Your task to perform on an android device: Play the last video I watched on Youtube Image 0: 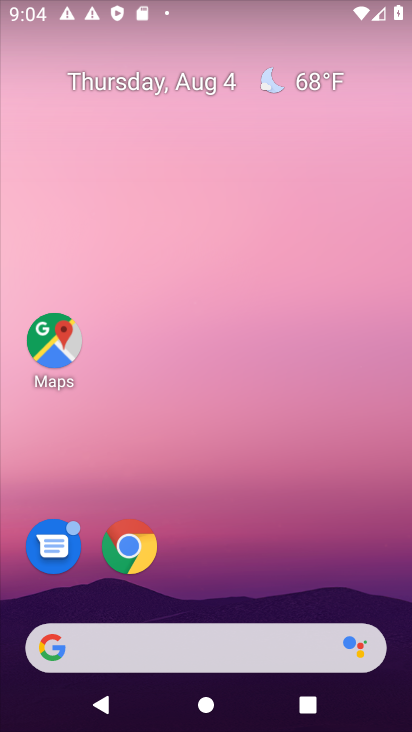
Step 0: press home button
Your task to perform on an android device: Play the last video I watched on Youtube Image 1: 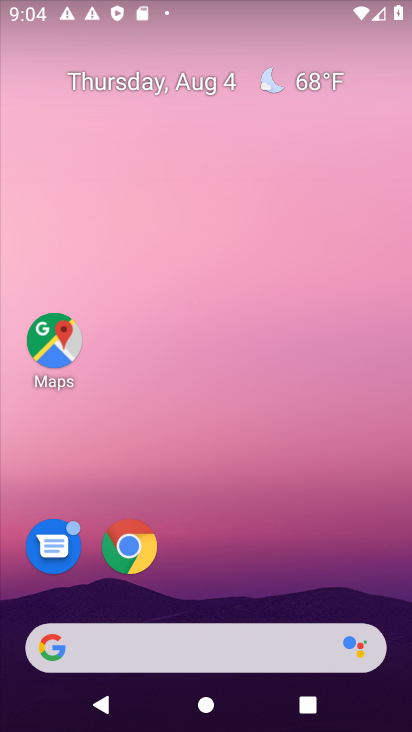
Step 1: drag from (229, 602) to (218, 124)
Your task to perform on an android device: Play the last video I watched on Youtube Image 2: 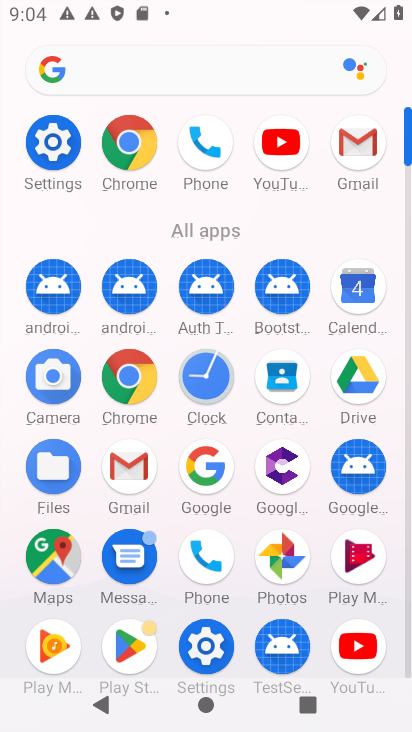
Step 2: click (353, 654)
Your task to perform on an android device: Play the last video I watched on Youtube Image 3: 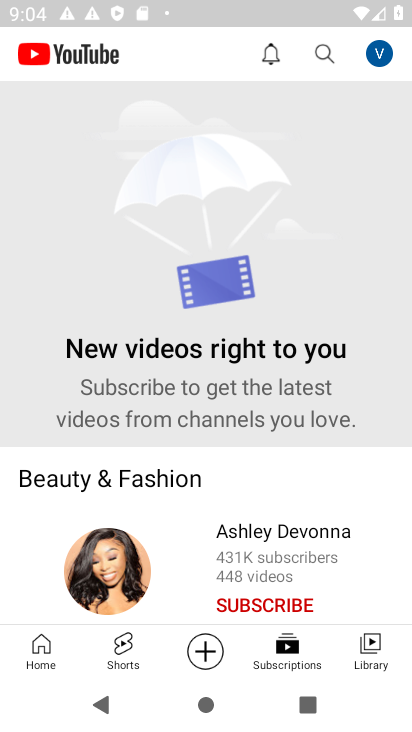
Step 3: click (369, 650)
Your task to perform on an android device: Play the last video I watched on Youtube Image 4: 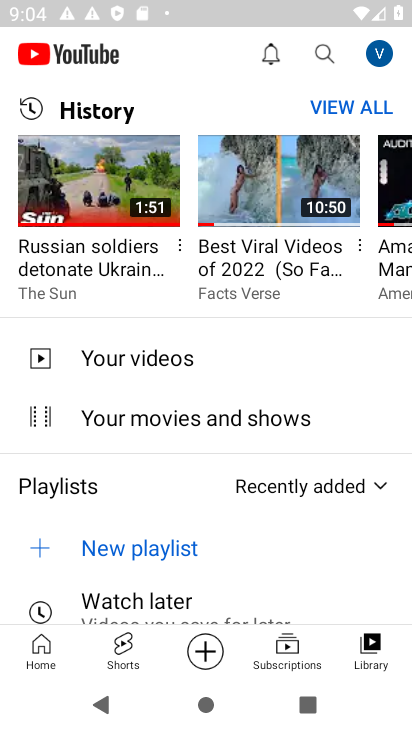
Step 4: click (104, 187)
Your task to perform on an android device: Play the last video I watched on Youtube Image 5: 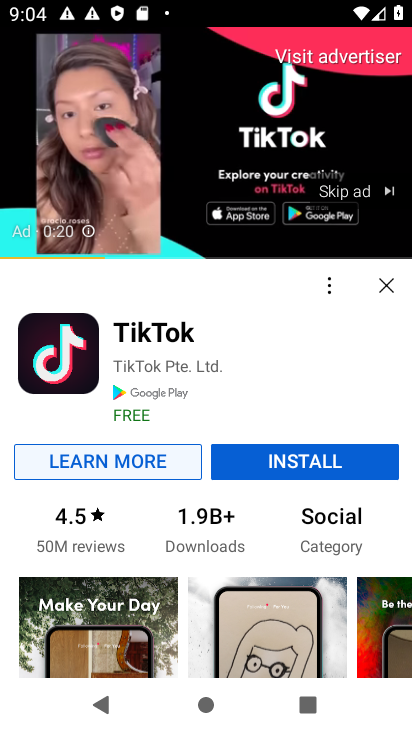
Step 5: click (352, 196)
Your task to perform on an android device: Play the last video I watched on Youtube Image 6: 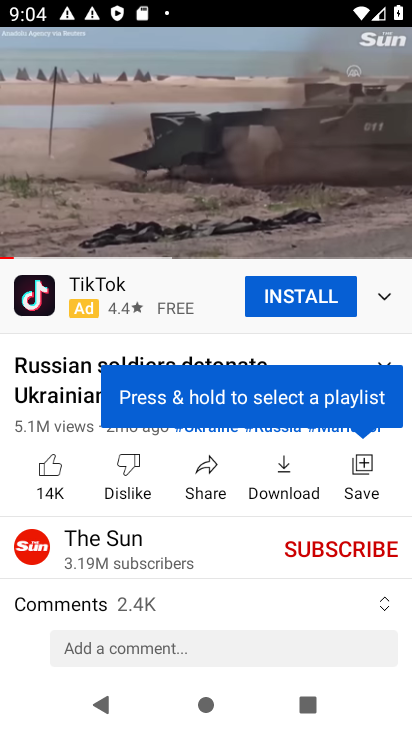
Step 6: task complete